Your task to perform on an android device: Add "usb-a" to the cart on ebay.com, then select checkout. Image 0: 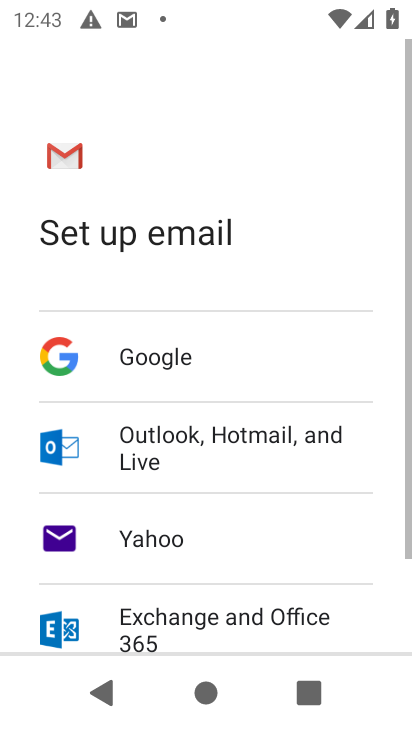
Step 0: press home button
Your task to perform on an android device: Add "usb-a" to the cart on ebay.com, then select checkout. Image 1: 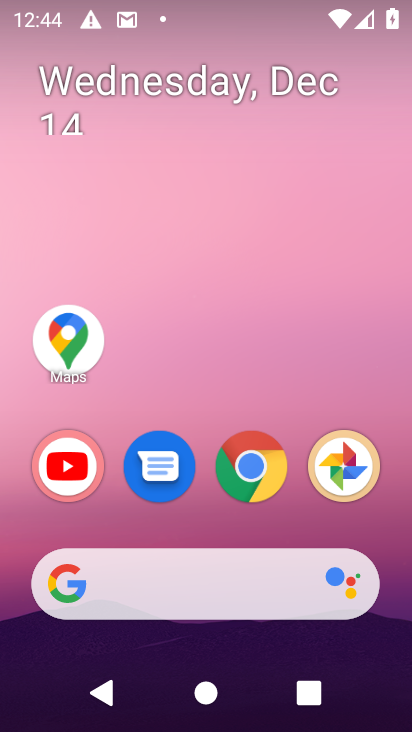
Step 1: click (386, 229)
Your task to perform on an android device: Add "usb-a" to the cart on ebay.com, then select checkout. Image 2: 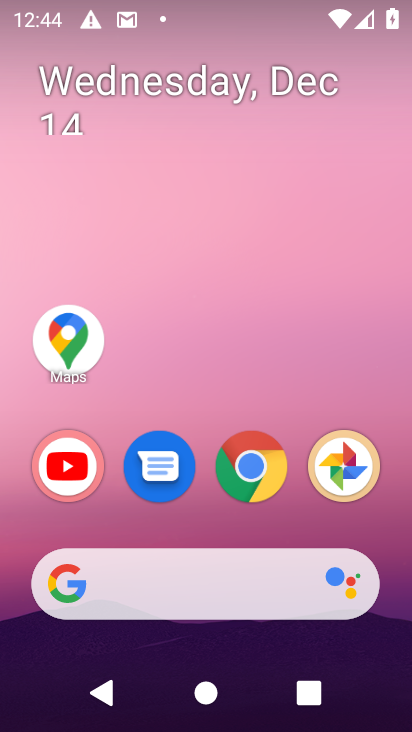
Step 2: click (164, 575)
Your task to perform on an android device: Add "usb-a" to the cart on ebay.com, then select checkout. Image 3: 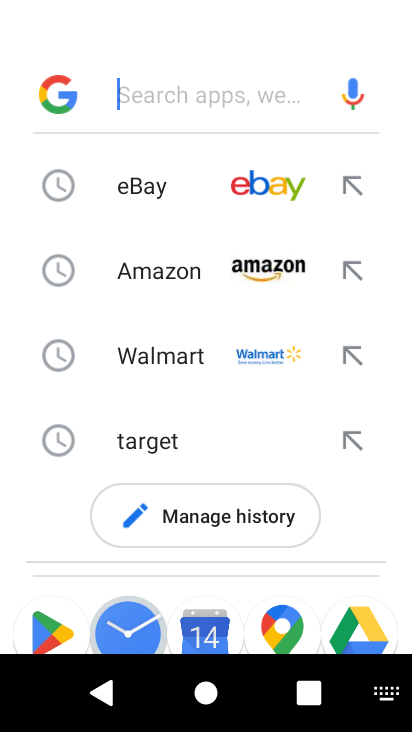
Step 3: click (237, 184)
Your task to perform on an android device: Add "usb-a" to the cart on ebay.com, then select checkout. Image 4: 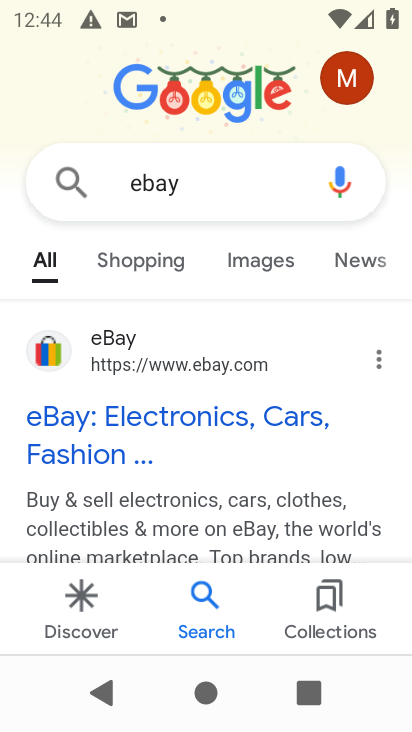
Step 4: click (126, 412)
Your task to perform on an android device: Add "usb-a" to the cart on ebay.com, then select checkout. Image 5: 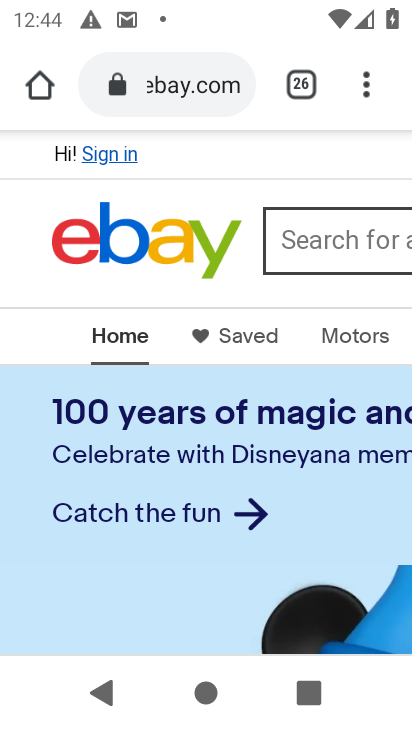
Step 5: click (344, 245)
Your task to perform on an android device: Add "usb-a" to the cart on ebay.com, then select checkout. Image 6: 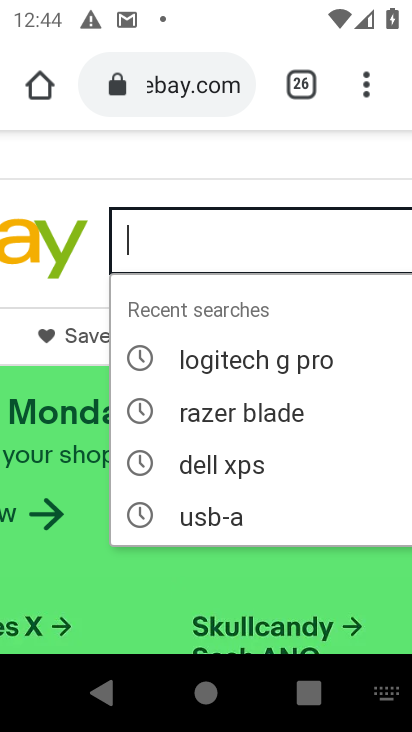
Step 6: type "usb-a"
Your task to perform on an android device: Add "usb-a" to the cart on ebay.com, then select checkout. Image 7: 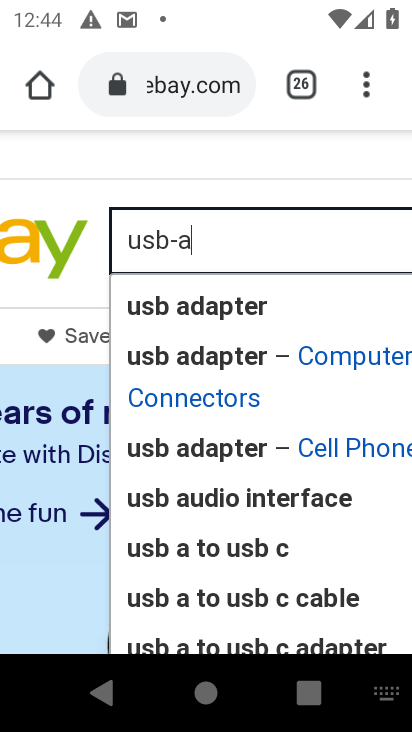
Step 7: drag from (319, 174) to (66, 163)
Your task to perform on an android device: Add "usb-a" to the cart on ebay.com, then select checkout. Image 8: 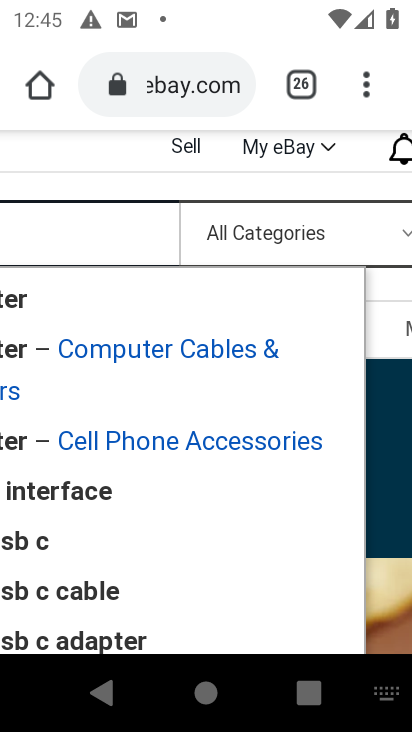
Step 8: drag from (269, 177) to (25, 146)
Your task to perform on an android device: Add "usb-a" to the cart on ebay.com, then select checkout. Image 9: 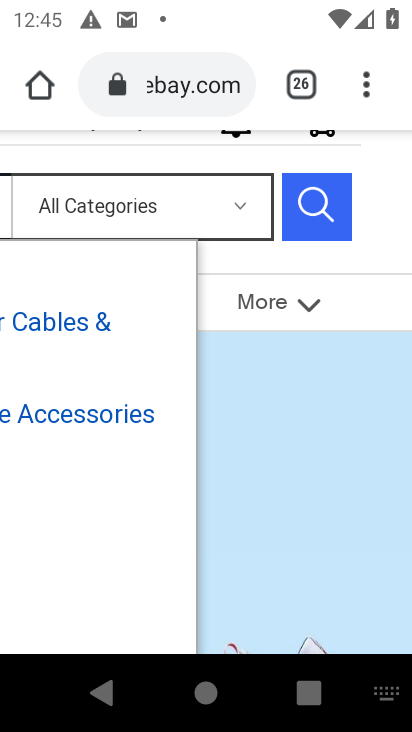
Step 9: click (310, 196)
Your task to perform on an android device: Add "usb-a" to the cart on ebay.com, then select checkout. Image 10: 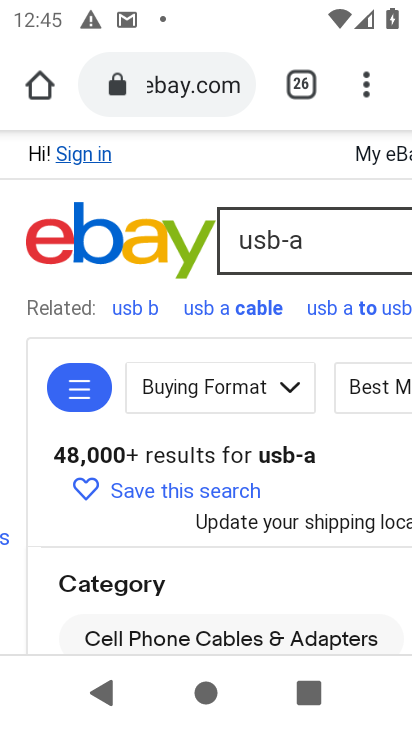
Step 10: drag from (277, 570) to (227, 265)
Your task to perform on an android device: Add "usb-a" to the cart on ebay.com, then select checkout. Image 11: 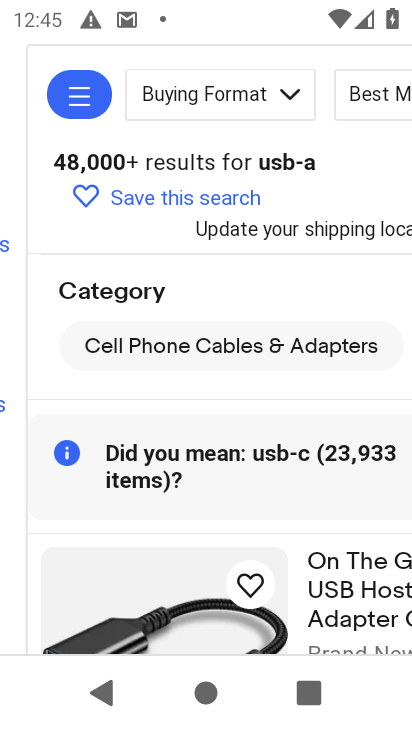
Step 11: drag from (222, 531) to (202, 352)
Your task to perform on an android device: Add "usb-a" to the cart on ebay.com, then select checkout. Image 12: 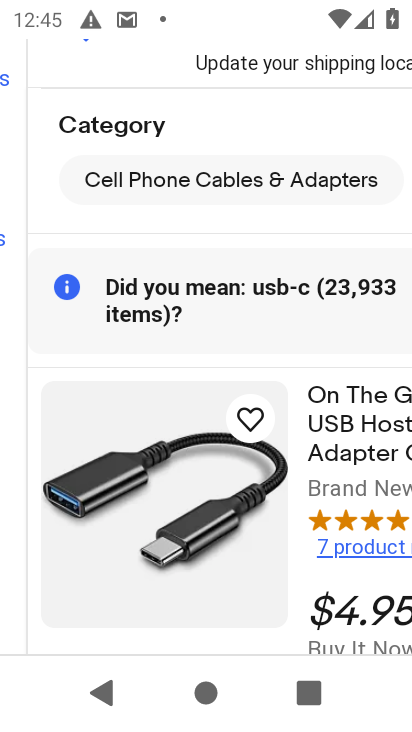
Step 12: drag from (279, 491) to (12, 654)
Your task to perform on an android device: Add "usb-a" to the cart on ebay.com, then select checkout. Image 13: 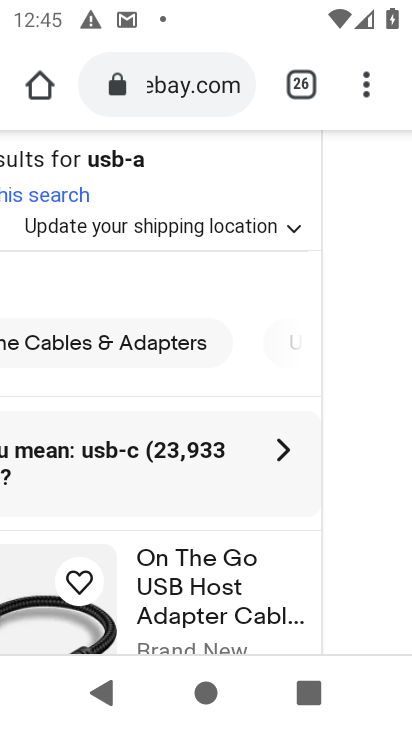
Step 13: drag from (170, 475) to (167, 294)
Your task to perform on an android device: Add "usb-a" to the cart on ebay.com, then select checkout. Image 14: 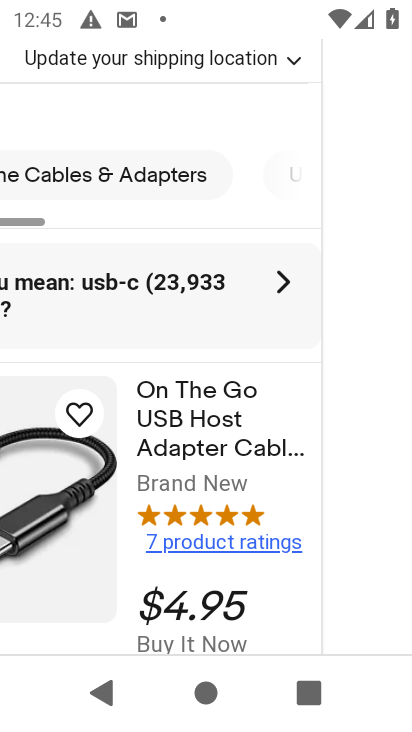
Step 14: drag from (179, 584) to (168, 73)
Your task to perform on an android device: Add "usb-a" to the cart on ebay.com, then select checkout. Image 15: 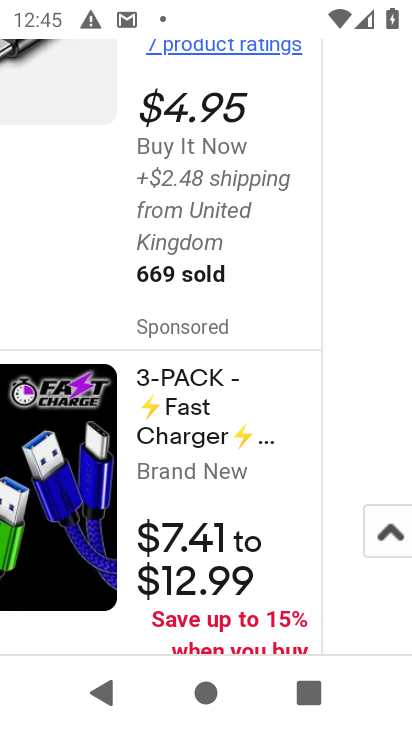
Step 15: click (177, 156)
Your task to perform on an android device: Add "usb-a" to the cart on ebay.com, then select checkout. Image 16: 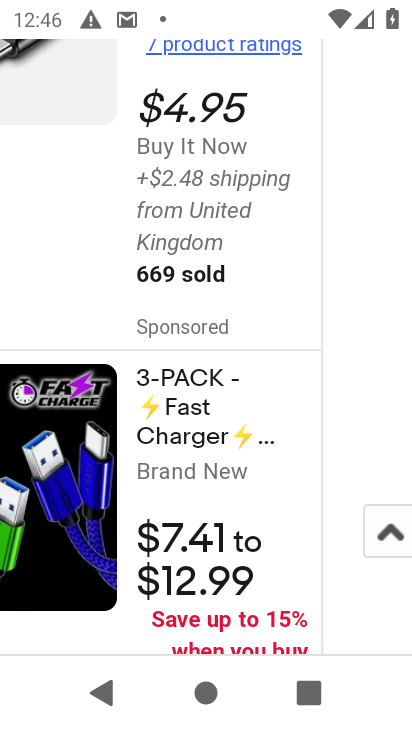
Step 16: click (34, 90)
Your task to perform on an android device: Add "usb-a" to the cart on ebay.com, then select checkout. Image 17: 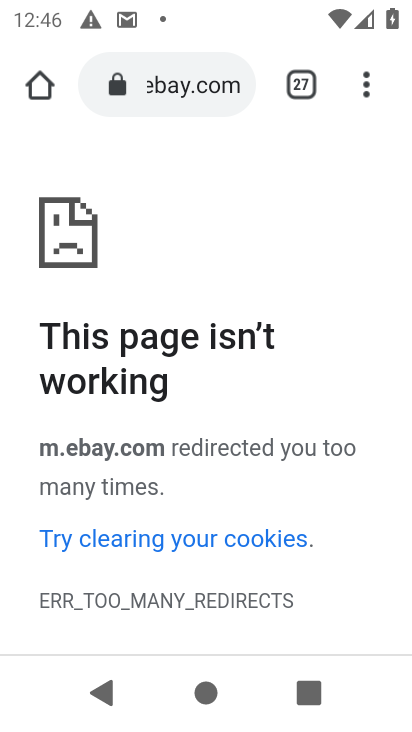
Step 17: task complete